Your task to perform on an android device: clear all cookies in the chrome app Image 0: 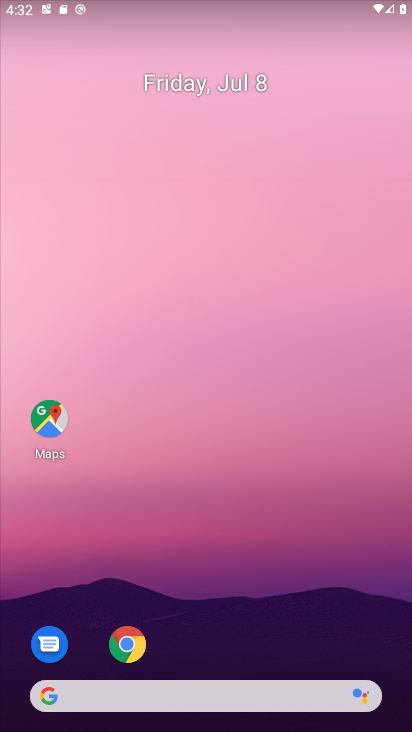
Step 0: click (128, 645)
Your task to perform on an android device: clear all cookies in the chrome app Image 1: 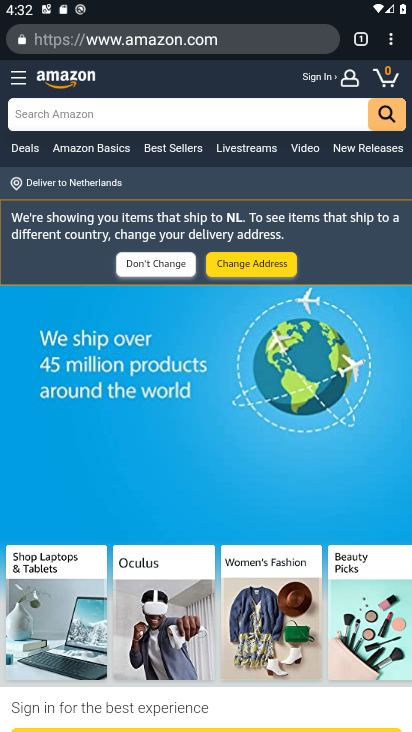
Step 1: click (390, 43)
Your task to perform on an android device: clear all cookies in the chrome app Image 2: 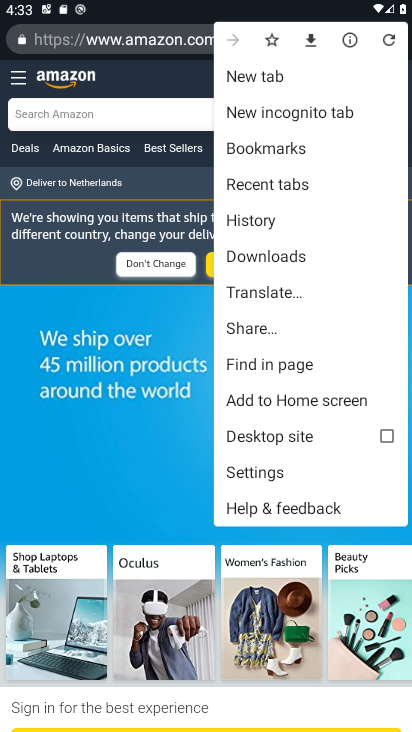
Step 2: click (252, 219)
Your task to perform on an android device: clear all cookies in the chrome app Image 3: 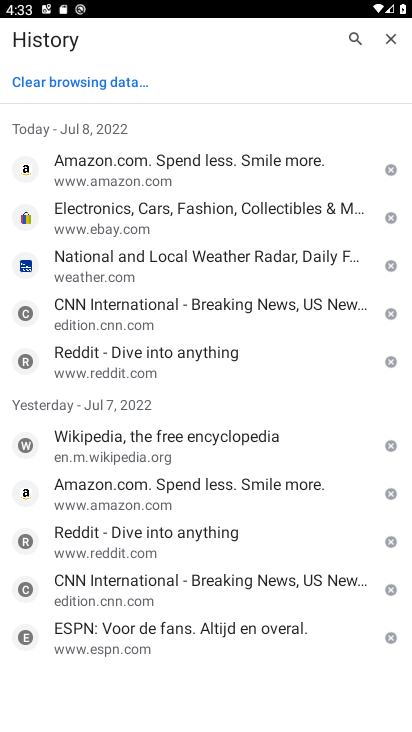
Step 3: click (78, 79)
Your task to perform on an android device: clear all cookies in the chrome app Image 4: 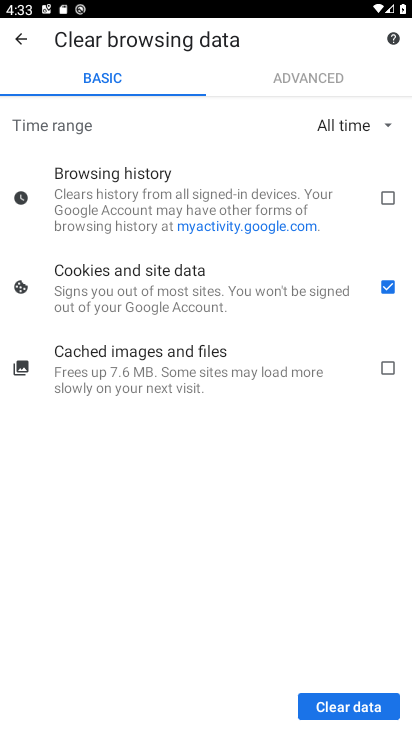
Step 4: click (350, 703)
Your task to perform on an android device: clear all cookies in the chrome app Image 5: 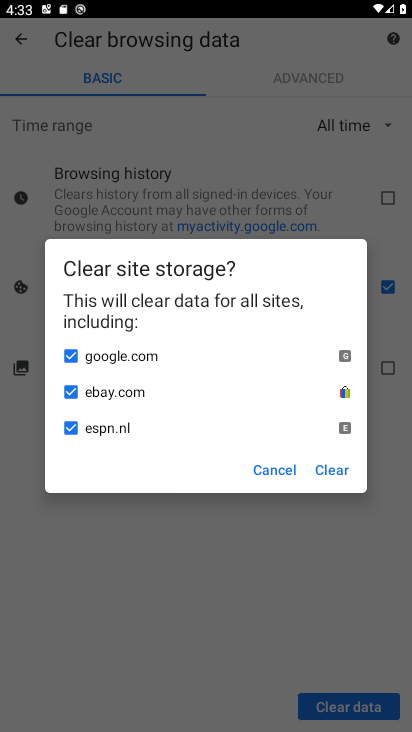
Step 5: click (336, 477)
Your task to perform on an android device: clear all cookies in the chrome app Image 6: 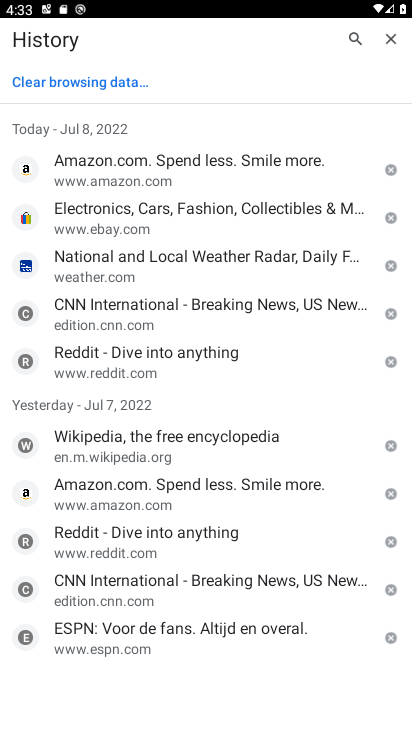
Step 6: task complete